Your task to perform on an android device: Open the calendar and show me this week's events Image 0: 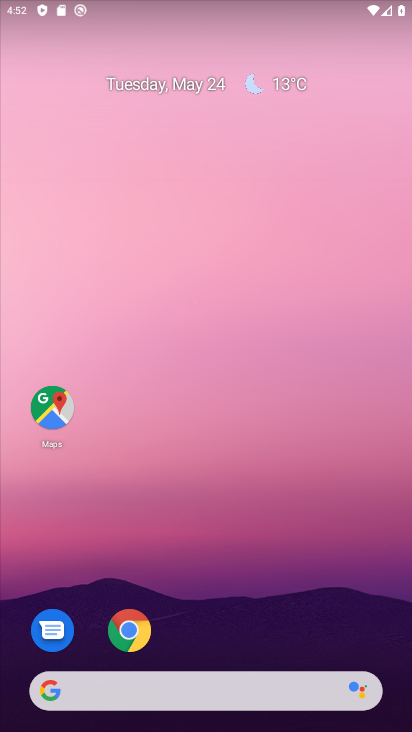
Step 0: drag from (240, 637) to (199, 9)
Your task to perform on an android device: Open the calendar and show me this week's events Image 1: 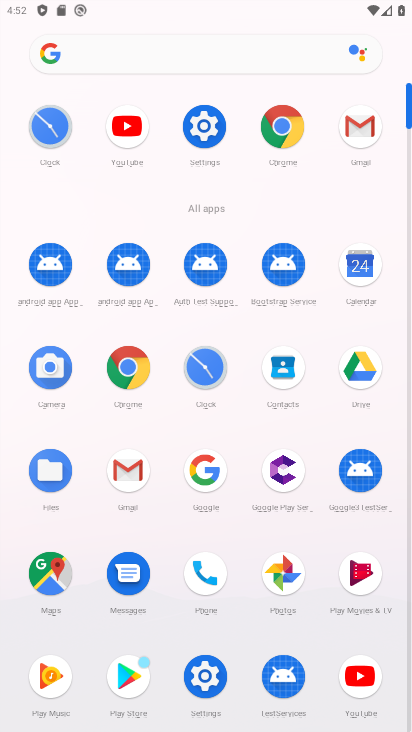
Step 1: click (365, 305)
Your task to perform on an android device: Open the calendar and show me this week's events Image 2: 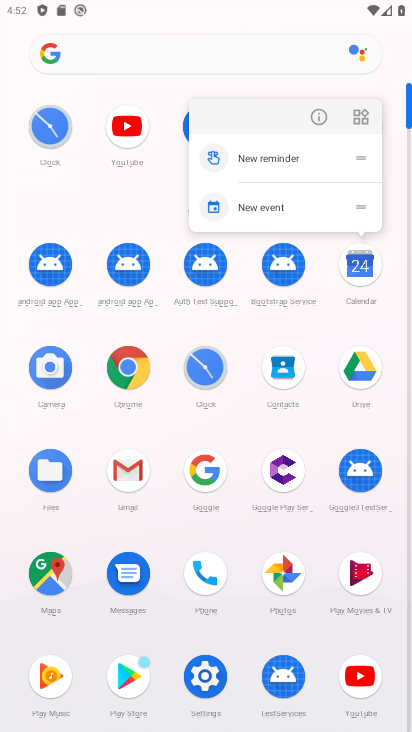
Step 2: click (359, 281)
Your task to perform on an android device: Open the calendar and show me this week's events Image 3: 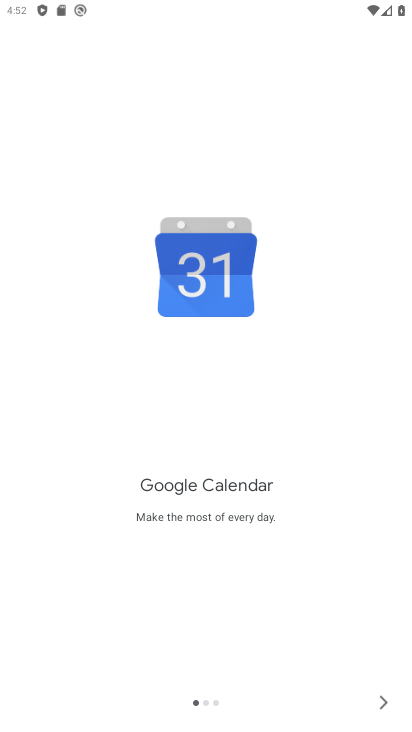
Step 3: click (369, 713)
Your task to perform on an android device: Open the calendar and show me this week's events Image 4: 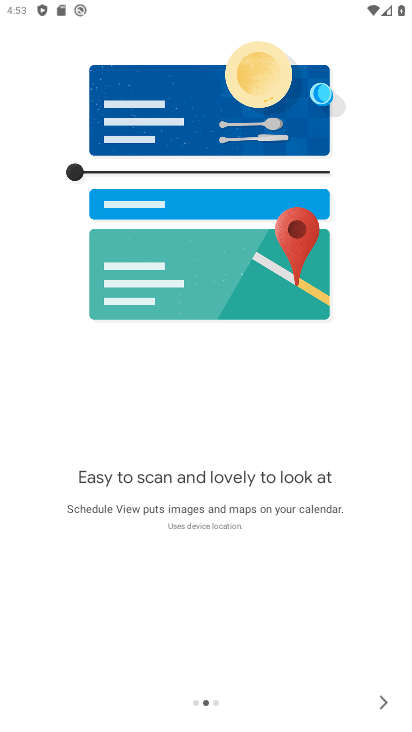
Step 4: click (384, 708)
Your task to perform on an android device: Open the calendar and show me this week's events Image 5: 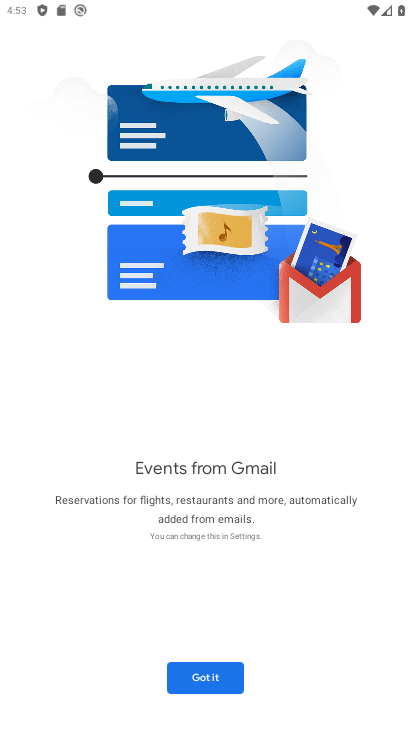
Step 5: click (385, 708)
Your task to perform on an android device: Open the calendar and show me this week's events Image 6: 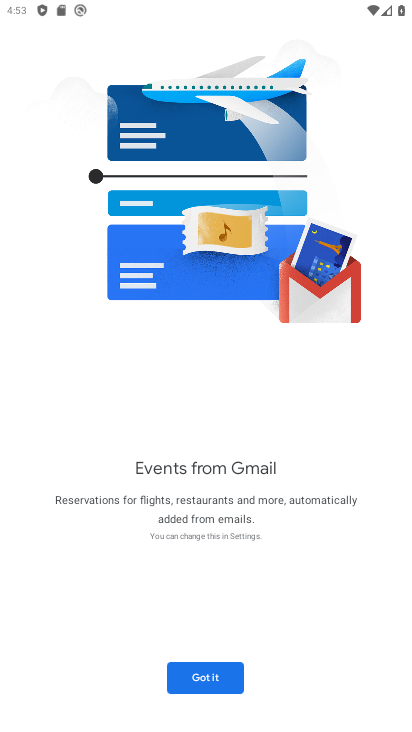
Step 6: click (191, 674)
Your task to perform on an android device: Open the calendar and show me this week's events Image 7: 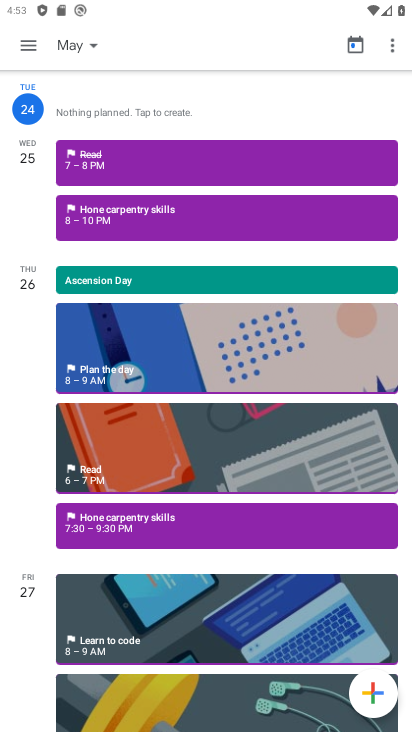
Step 7: click (27, 48)
Your task to perform on an android device: Open the calendar and show me this week's events Image 8: 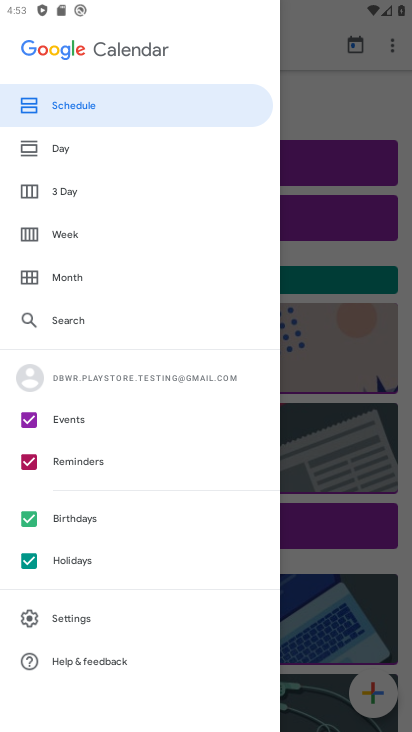
Step 8: click (82, 232)
Your task to perform on an android device: Open the calendar and show me this week's events Image 9: 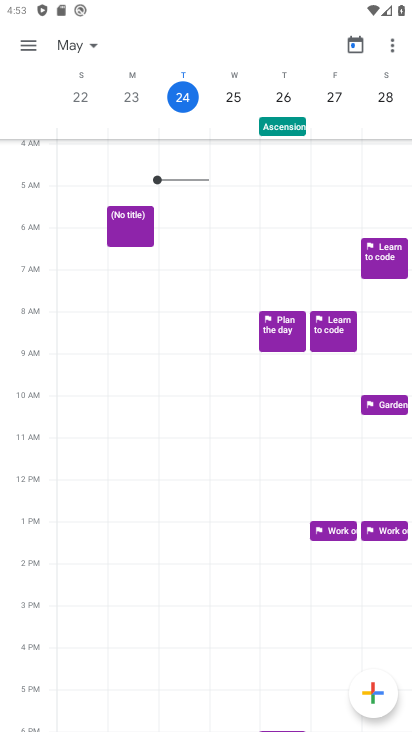
Step 9: click (66, 62)
Your task to perform on an android device: Open the calendar and show me this week's events Image 10: 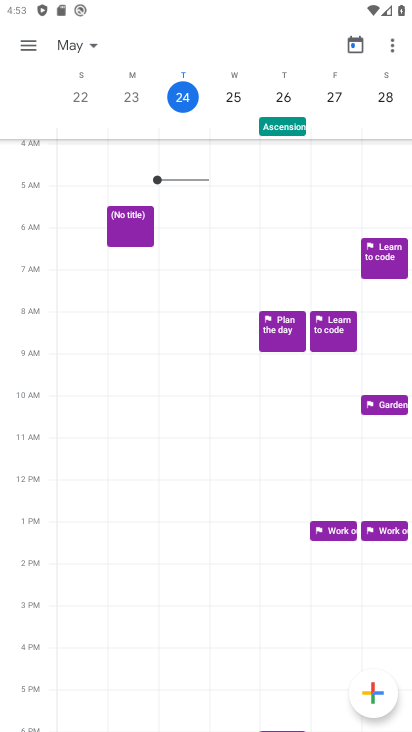
Step 10: click (80, 52)
Your task to perform on an android device: Open the calendar and show me this week's events Image 11: 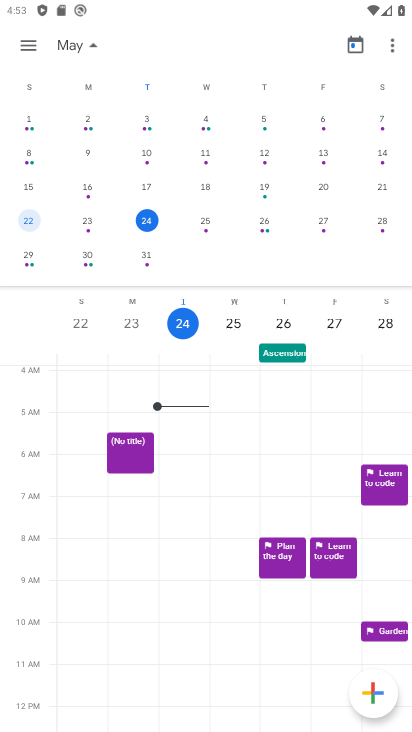
Step 11: task complete